Your task to perform on an android device: check out phone information Image 0: 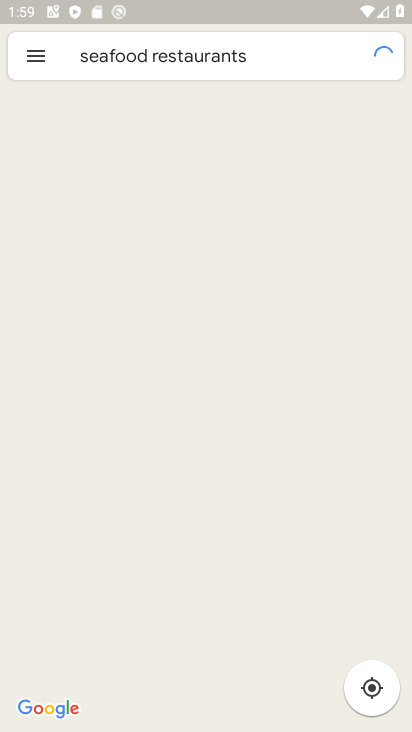
Step 0: press home button
Your task to perform on an android device: check out phone information Image 1: 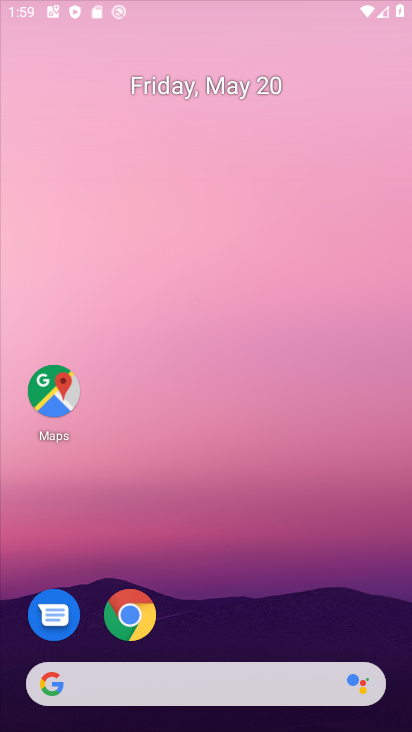
Step 1: drag from (227, 619) to (252, 287)
Your task to perform on an android device: check out phone information Image 2: 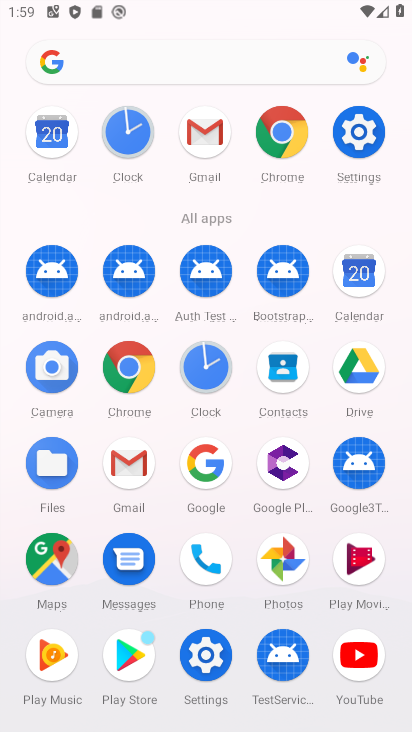
Step 2: click (366, 131)
Your task to perform on an android device: check out phone information Image 3: 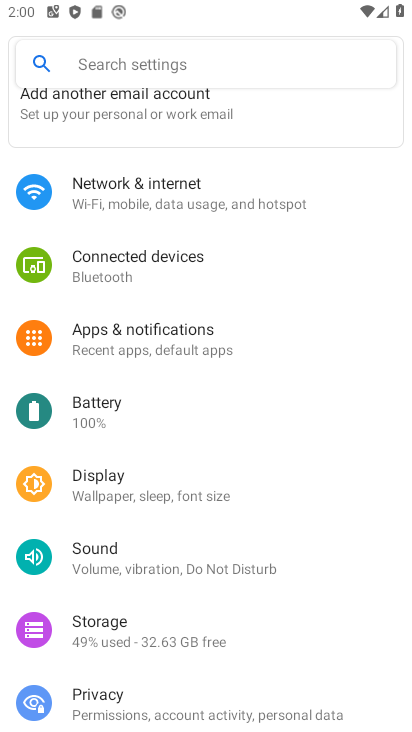
Step 3: drag from (200, 725) to (195, 236)
Your task to perform on an android device: check out phone information Image 4: 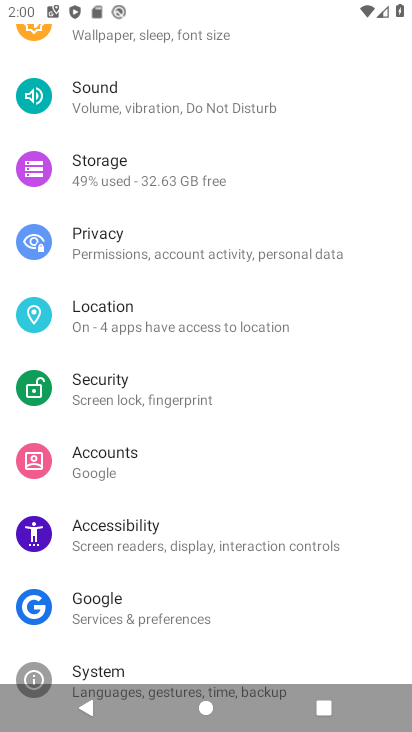
Step 4: drag from (203, 582) to (213, 141)
Your task to perform on an android device: check out phone information Image 5: 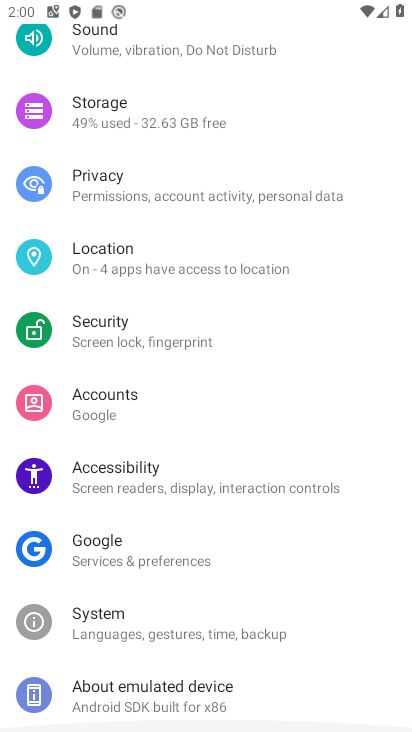
Step 5: drag from (166, 604) to (203, 330)
Your task to perform on an android device: check out phone information Image 6: 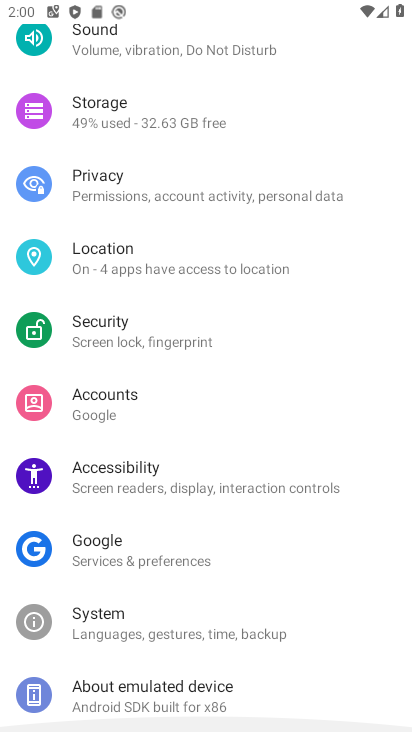
Step 6: click (146, 704)
Your task to perform on an android device: check out phone information Image 7: 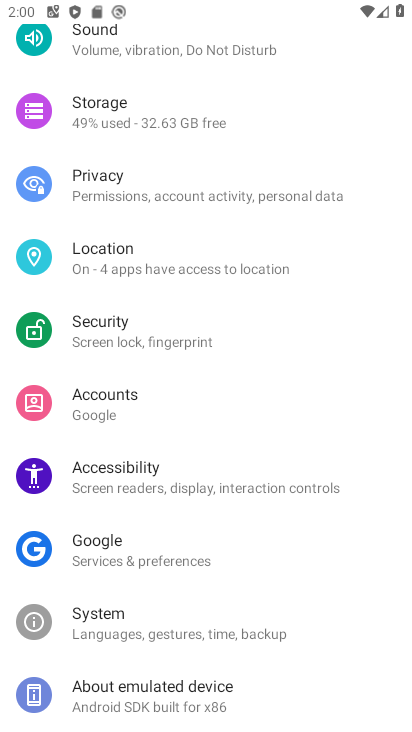
Step 7: click (151, 699)
Your task to perform on an android device: check out phone information Image 8: 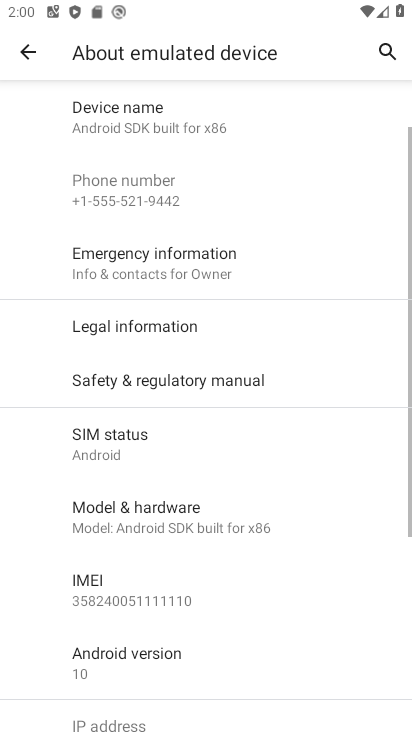
Step 8: task complete